Your task to perform on an android device: Open Wikipedia Image 0: 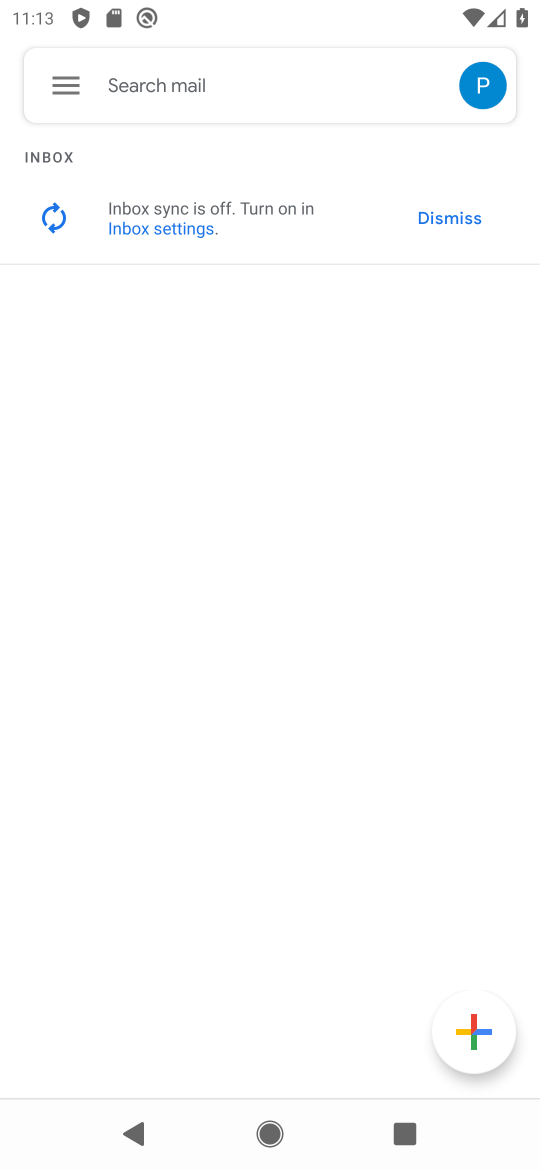
Step 0: press back button
Your task to perform on an android device: Open Wikipedia Image 1: 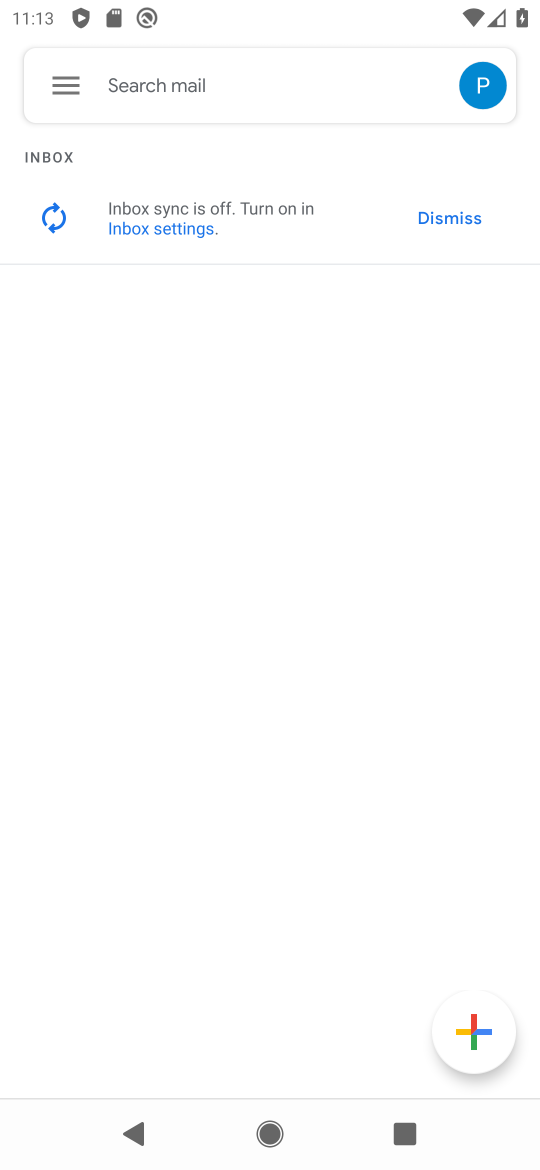
Step 1: press home button
Your task to perform on an android device: Open Wikipedia Image 2: 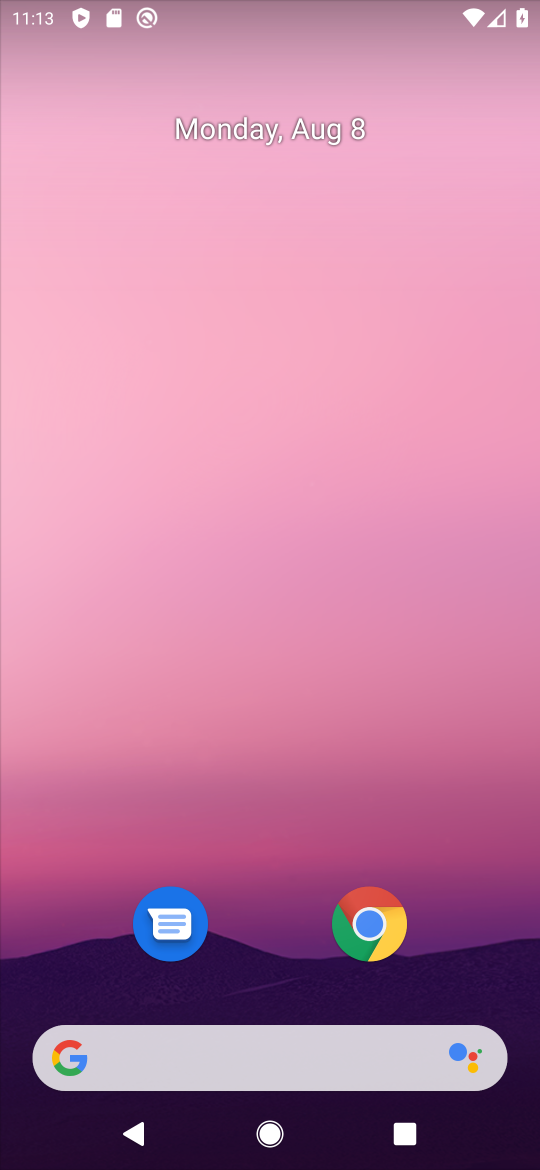
Step 2: drag from (298, 1003) to (259, 53)
Your task to perform on an android device: Open Wikipedia Image 3: 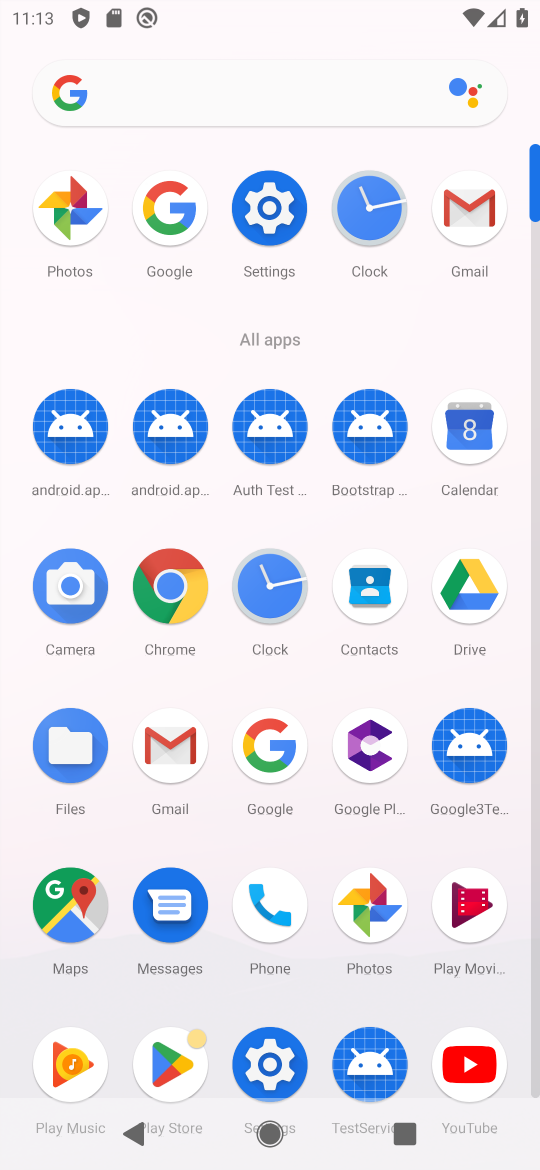
Step 3: click (184, 602)
Your task to perform on an android device: Open Wikipedia Image 4: 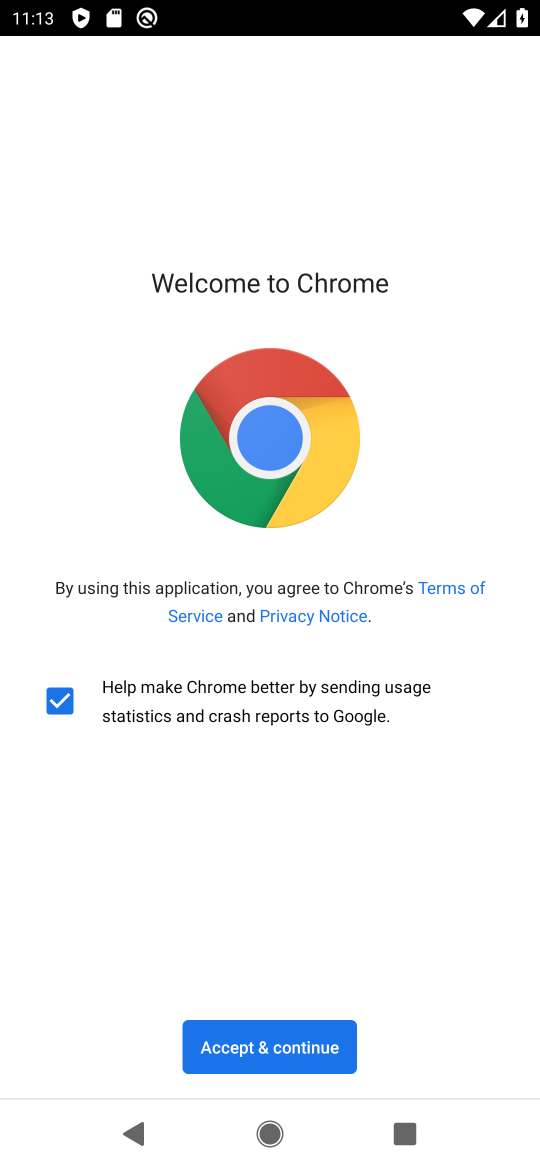
Step 4: click (337, 1061)
Your task to perform on an android device: Open Wikipedia Image 5: 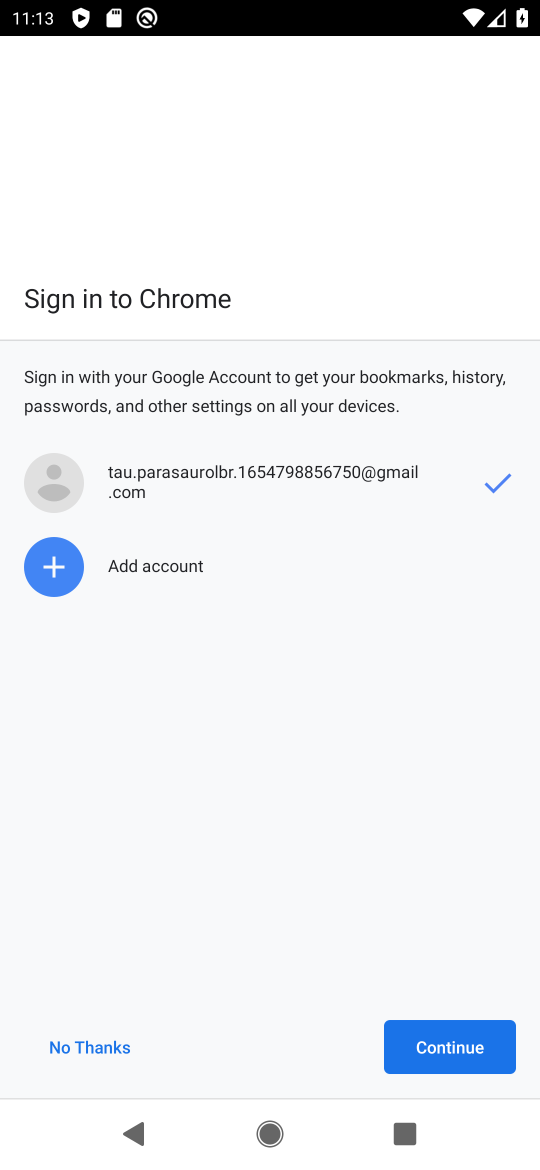
Step 5: click (443, 1054)
Your task to perform on an android device: Open Wikipedia Image 6: 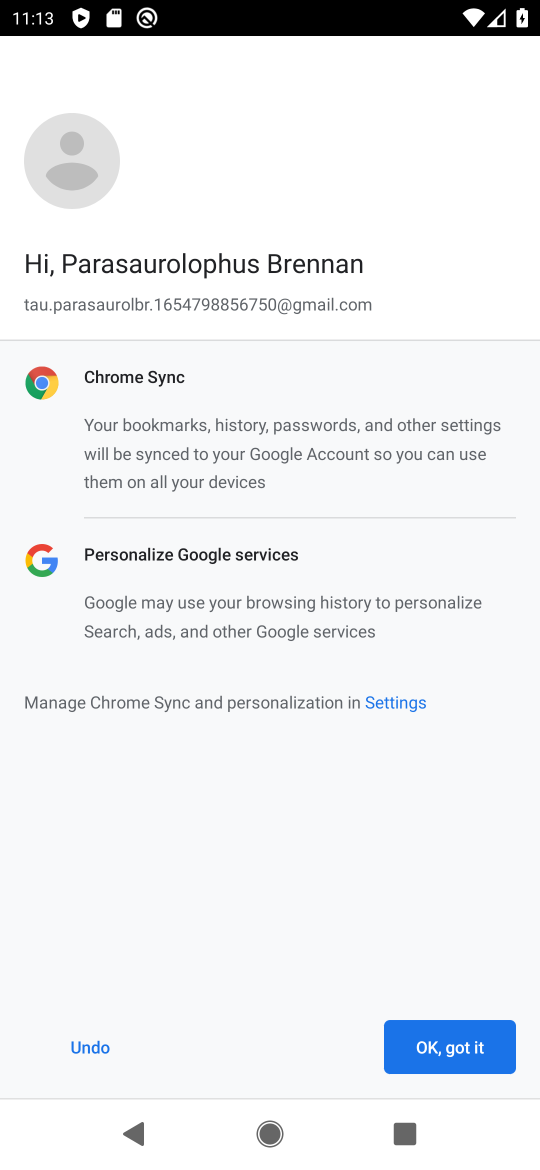
Step 6: click (443, 1054)
Your task to perform on an android device: Open Wikipedia Image 7: 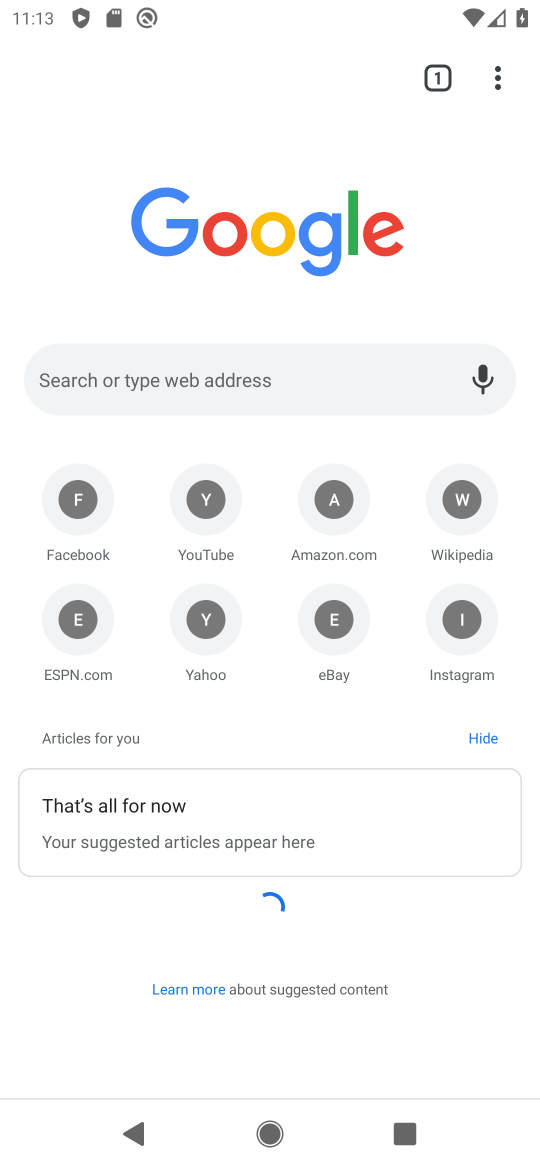
Step 7: click (464, 521)
Your task to perform on an android device: Open Wikipedia Image 8: 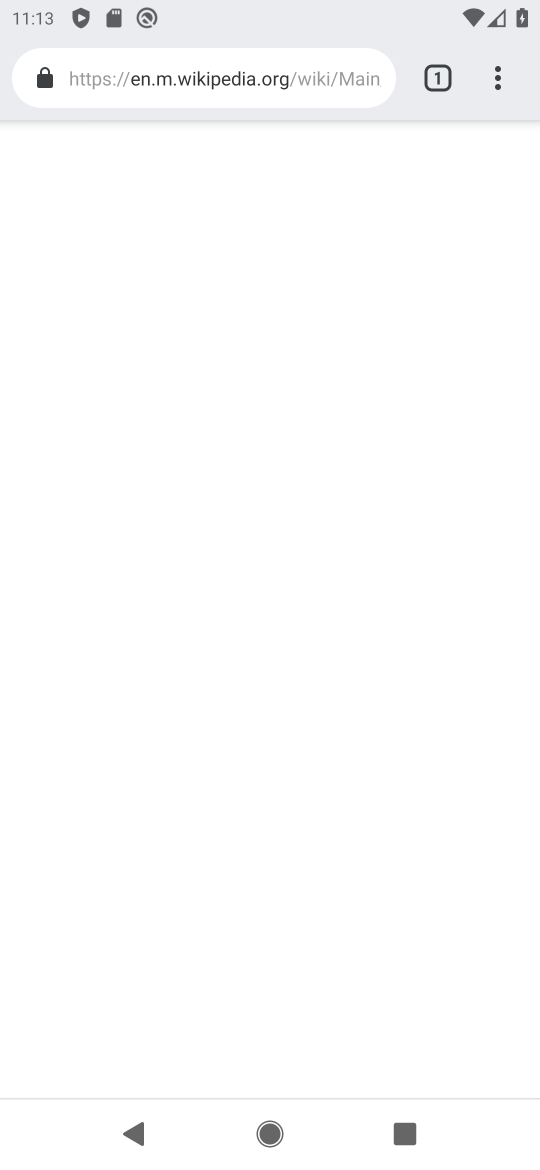
Step 8: task complete